Your task to perform on an android device: turn off javascript in the chrome app Image 0: 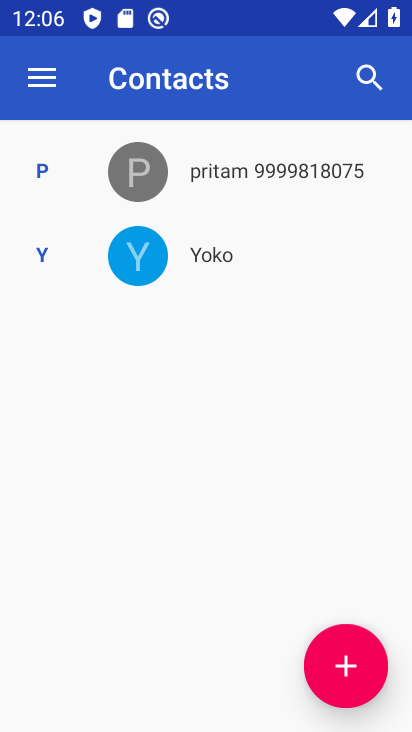
Step 0: press home button
Your task to perform on an android device: turn off javascript in the chrome app Image 1: 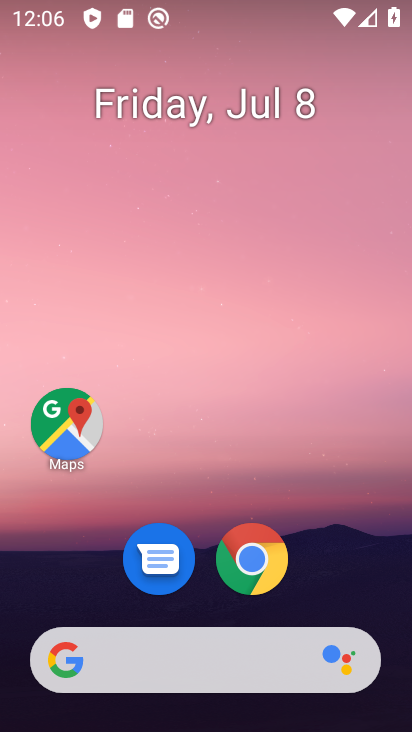
Step 1: drag from (234, 611) to (234, 85)
Your task to perform on an android device: turn off javascript in the chrome app Image 2: 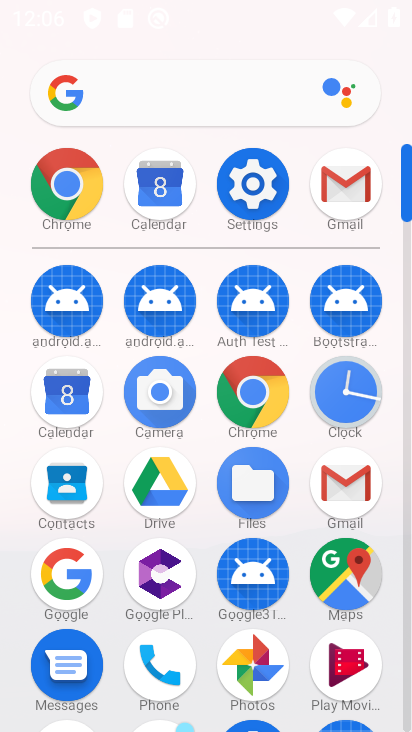
Step 2: click (270, 389)
Your task to perform on an android device: turn off javascript in the chrome app Image 3: 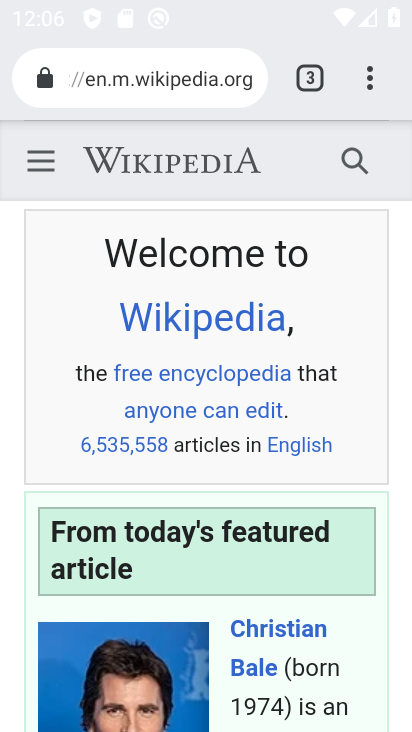
Step 3: click (366, 79)
Your task to perform on an android device: turn off javascript in the chrome app Image 4: 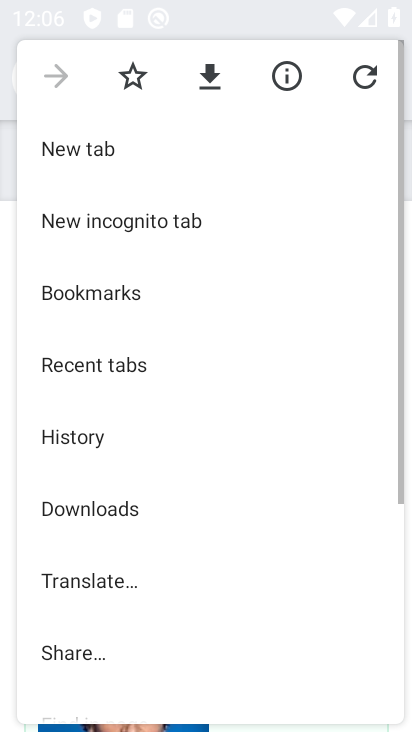
Step 4: drag from (113, 558) to (114, 176)
Your task to perform on an android device: turn off javascript in the chrome app Image 5: 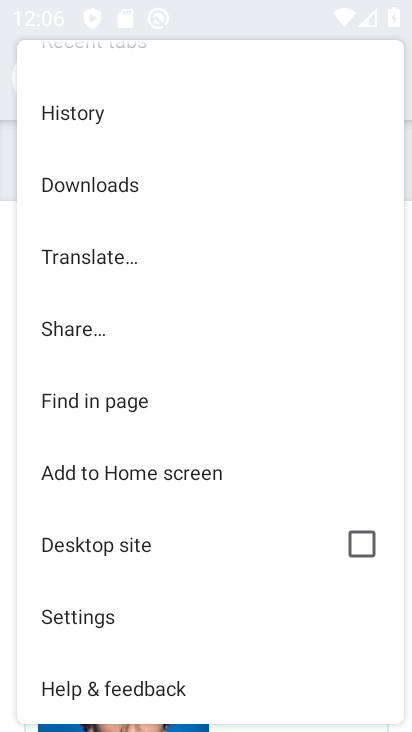
Step 5: click (122, 605)
Your task to perform on an android device: turn off javascript in the chrome app Image 6: 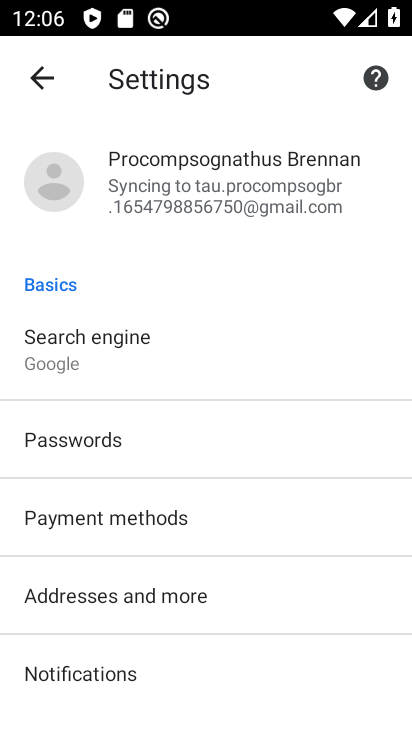
Step 6: drag from (167, 576) to (175, 205)
Your task to perform on an android device: turn off javascript in the chrome app Image 7: 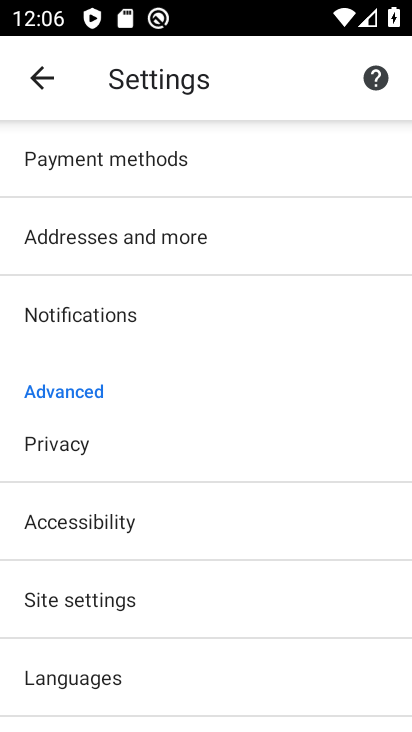
Step 7: click (133, 615)
Your task to perform on an android device: turn off javascript in the chrome app Image 8: 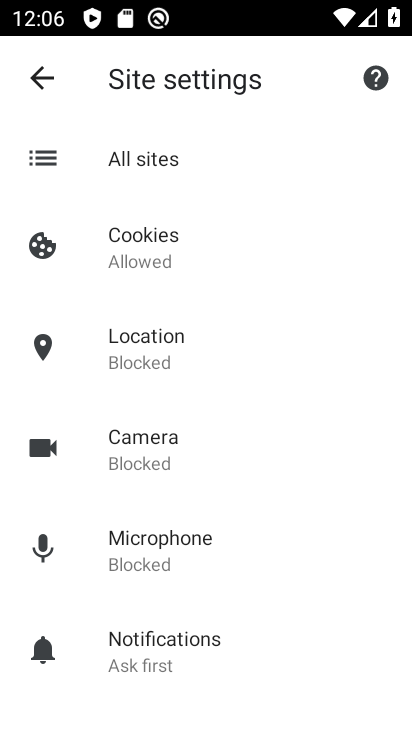
Step 8: drag from (144, 612) to (152, 262)
Your task to perform on an android device: turn off javascript in the chrome app Image 9: 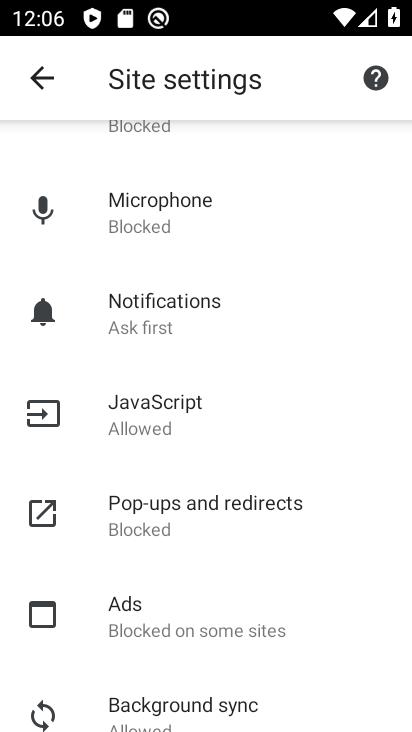
Step 9: click (155, 397)
Your task to perform on an android device: turn off javascript in the chrome app Image 10: 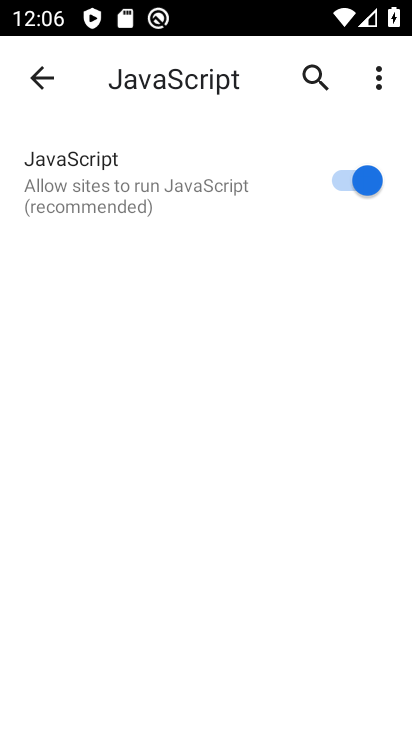
Step 10: click (344, 185)
Your task to perform on an android device: turn off javascript in the chrome app Image 11: 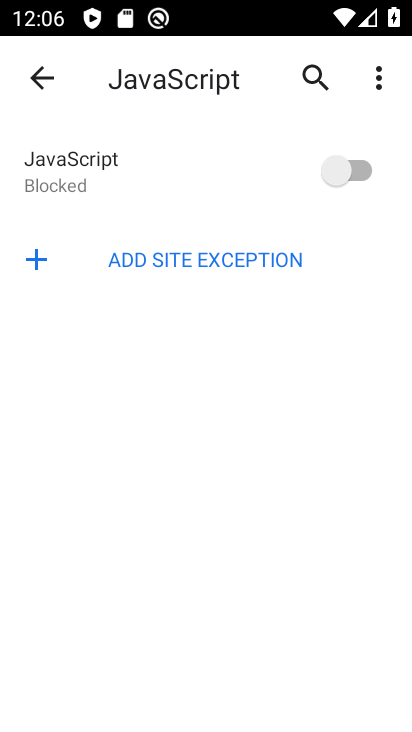
Step 11: task complete